Your task to perform on an android device: set the stopwatch Image 0: 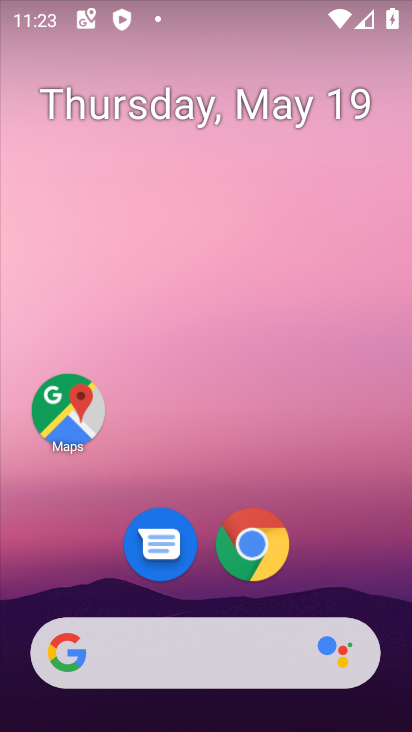
Step 0: drag from (335, 561) to (185, 3)
Your task to perform on an android device: set the stopwatch Image 1: 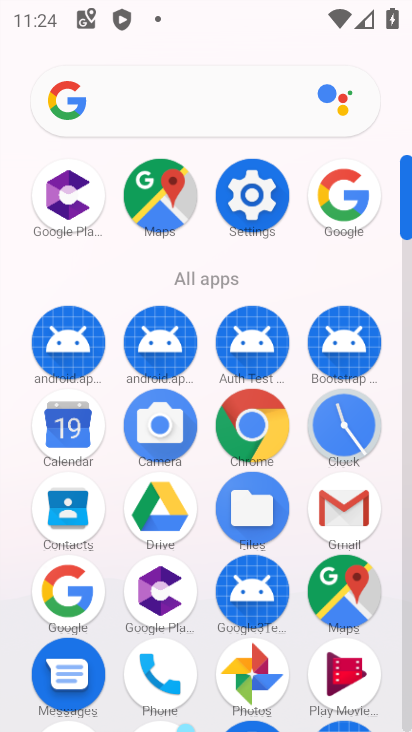
Step 1: click (361, 443)
Your task to perform on an android device: set the stopwatch Image 2: 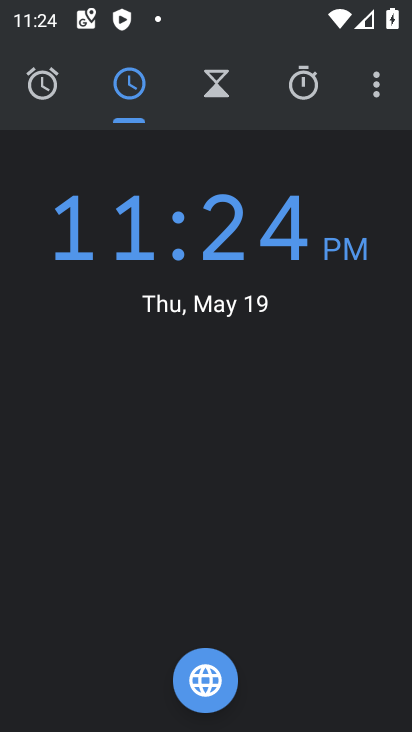
Step 2: click (314, 96)
Your task to perform on an android device: set the stopwatch Image 3: 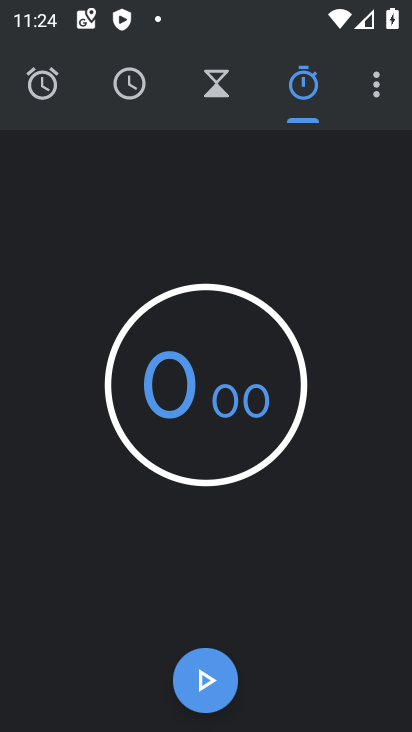
Step 3: click (207, 682)
Your task to perform on an android device: set the stopwatch Image 4: 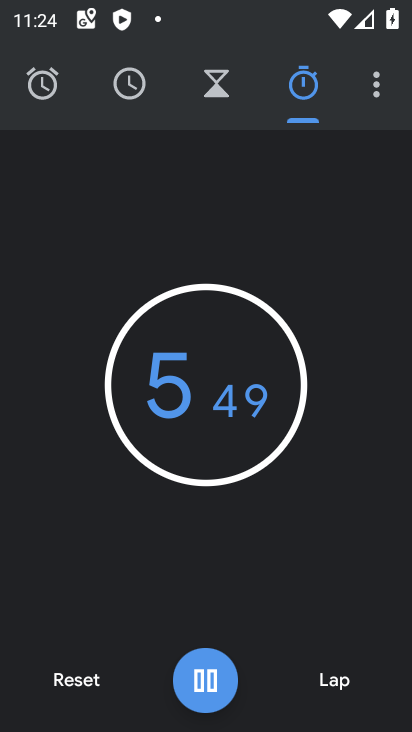
Step 4: task complete